Your task to perform on an android device: Go to Google Image 0: 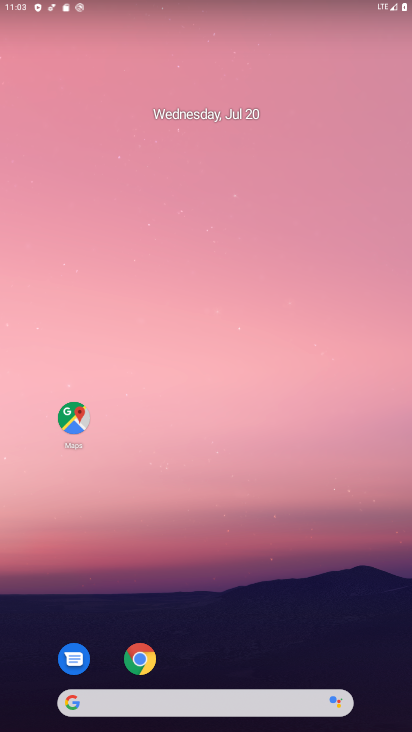
Step 0: drag from (208, 729) to (208, 214)
Your task to perform on an android device: Go to Google Image 1: 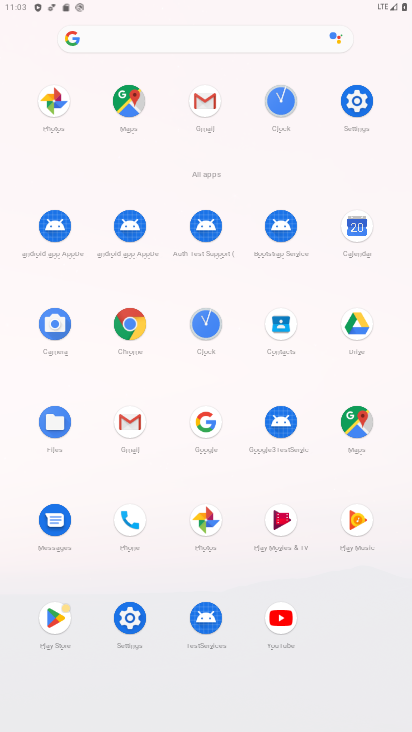
Step 1: click (207, 422)
Your task to perform on an android device: Go to Google Image 2: 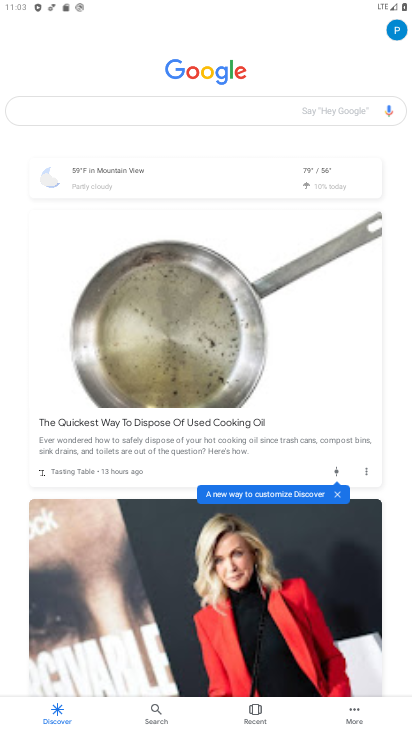
Step 2: task complete